Your task to perform on an android device: turn off javascript in the chrome app Image 0: 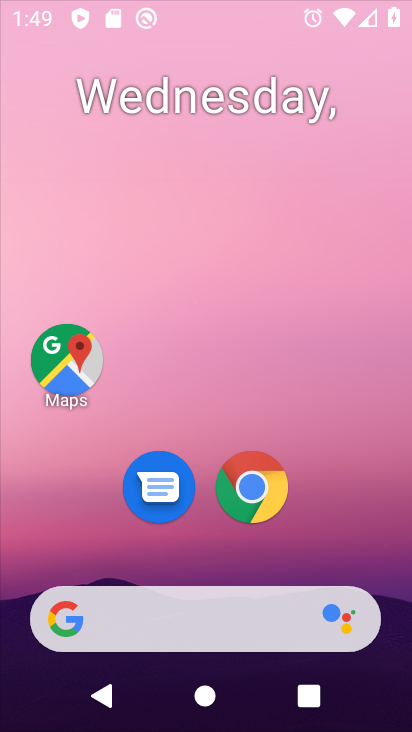
Step 0: drag from (385, 571) to (274, 85)
Your task to perform on an android device: turn off javascript in the chrome app Image 1: 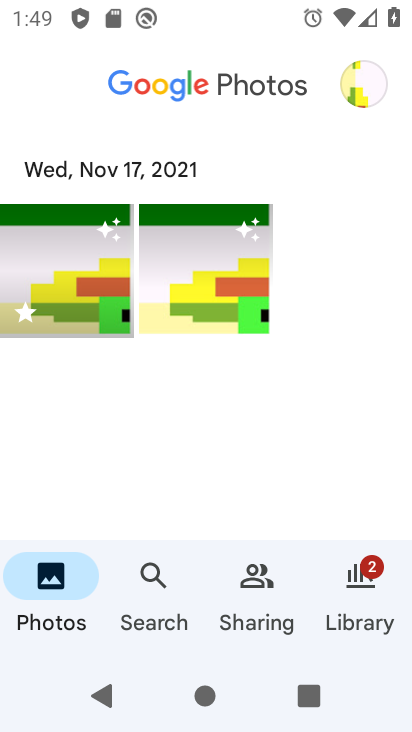
Step 1: press home button
Your task to perform on an android device: turn off javascript in the chrome app Image 2: 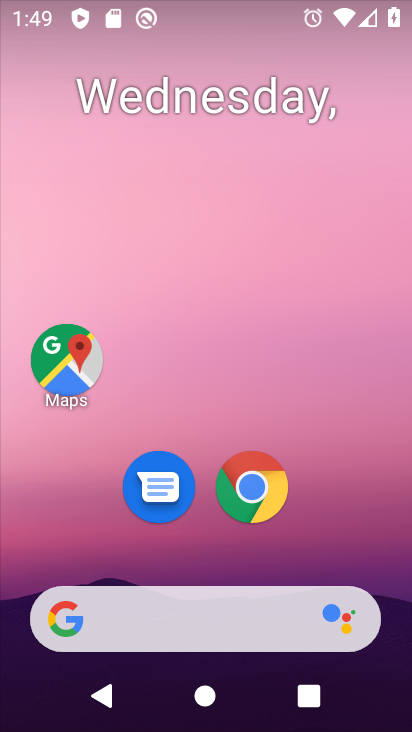
Step 2: drag from (393, 619) to (168, 59)
Your task to perform on an android device: turn off javascript in the chrome app Image 3: 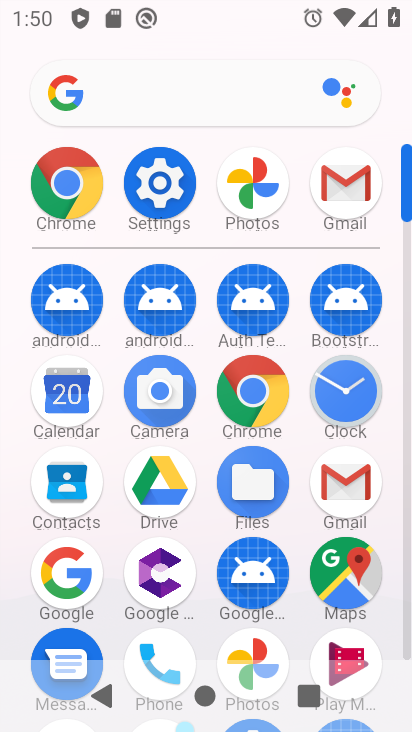
Step 3: click (258, 404)
Your task to perform on an android device: turn off javascript in the chrome app Image 4: 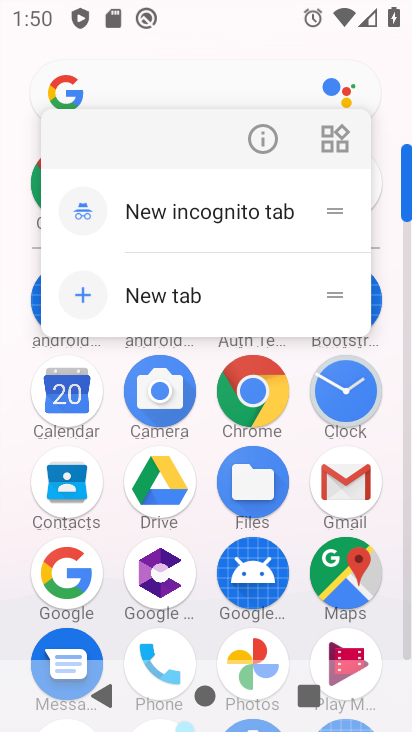
Step 4: click (268, 399)
Your task to perform on an android device: turn off javascript in the chrome app Image 5: 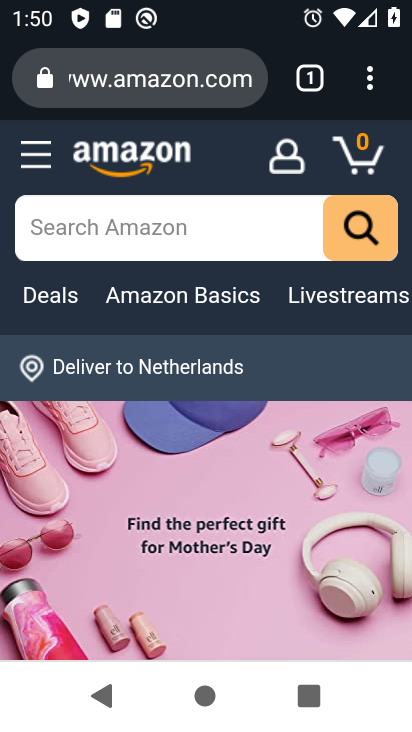
Step 5: press back button
Your task to perform on an android device: turn off javascript in the chrome app Image 6: 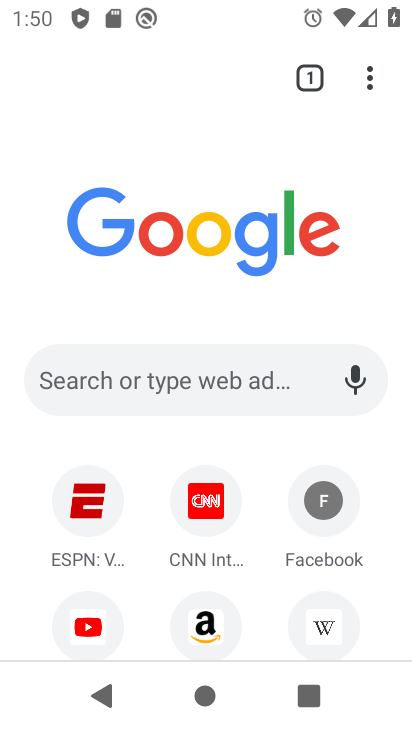
Step 6: click (370, 73)
Your task to perform on an android device: turn off javascript in the chrome app Image 7: 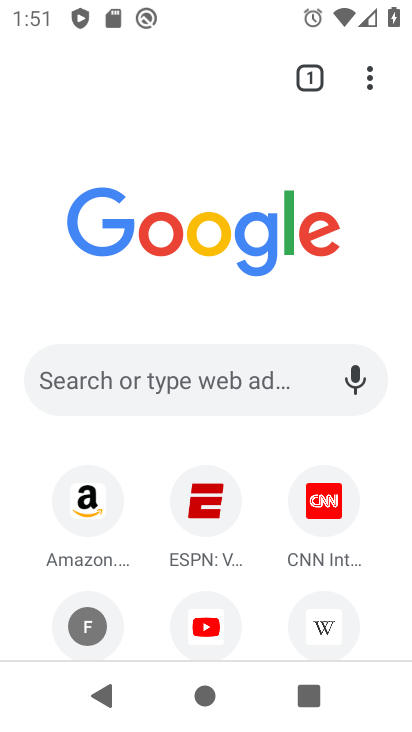
Step 7: click (370, 73)
Your task to perform on an android device: turn off javascript in the chrome app Image 8: 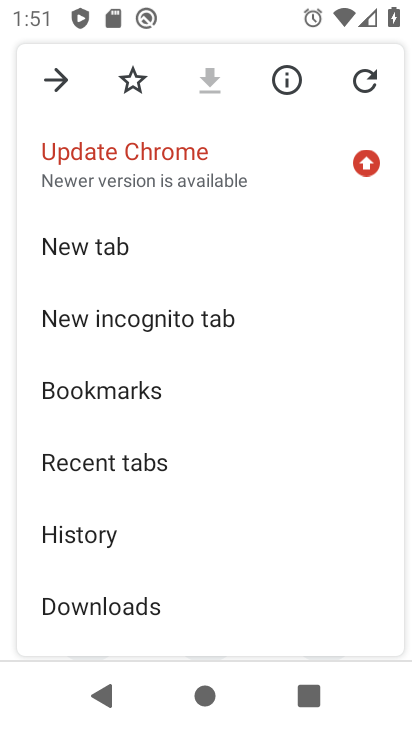
Step 8: drag from (172, 603) to (184, 127)
Your task to perform on an android device: turn off javascript in the chrome app Image 9: 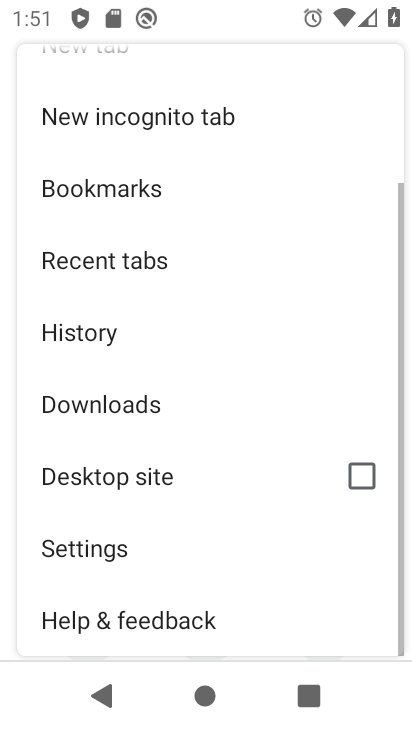
Step 9: click (107, 556)
Your task to perform on an android device: turn off javascript in the chrome app Image 10: 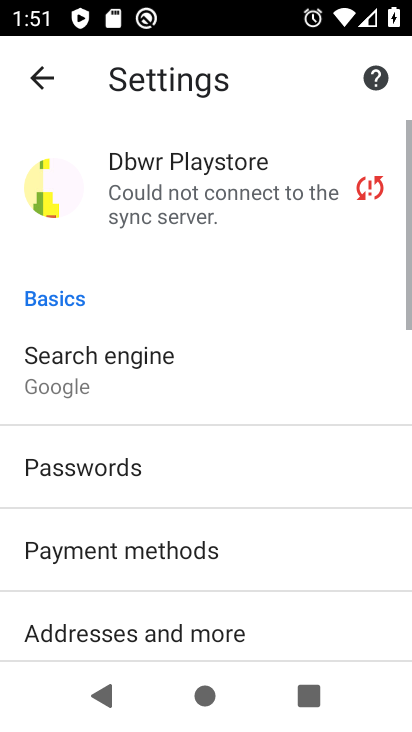
Step 10: drag from (114, 589) to (173, 155)
Your task to perform on an android device: turn off javascript in the chrome app Image 11: 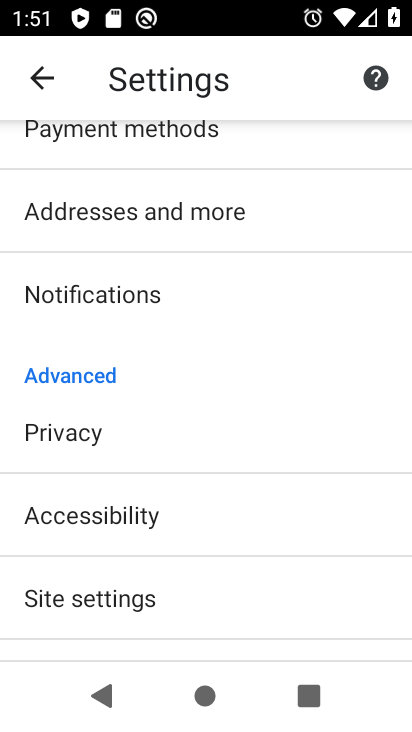
Step 11: click (133, 597)
Your task to perform on an android device: turn off javascript in the chrome app Image 12: 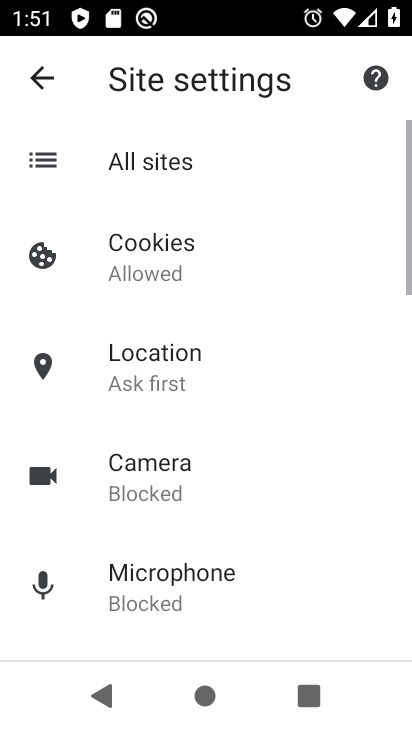
Step 12: drag from (166, 555) to (237, 155)
Your task to perform on an android device: turn off javascript in the chrome app Image 13: 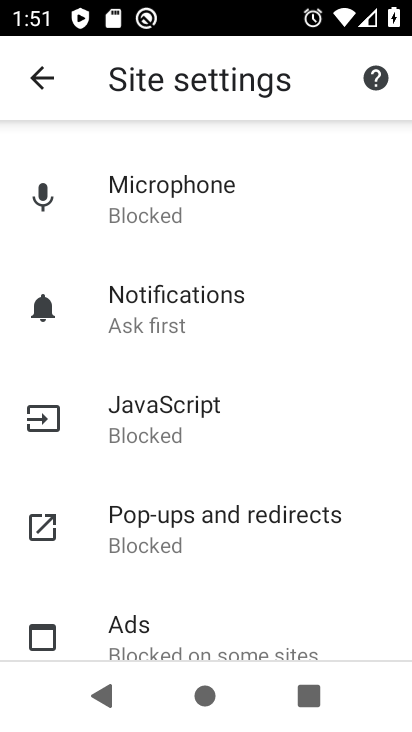
Step 13: click (206, 419)
Your task to perform on an android device: turn off javascript in the chrome app Image 14: 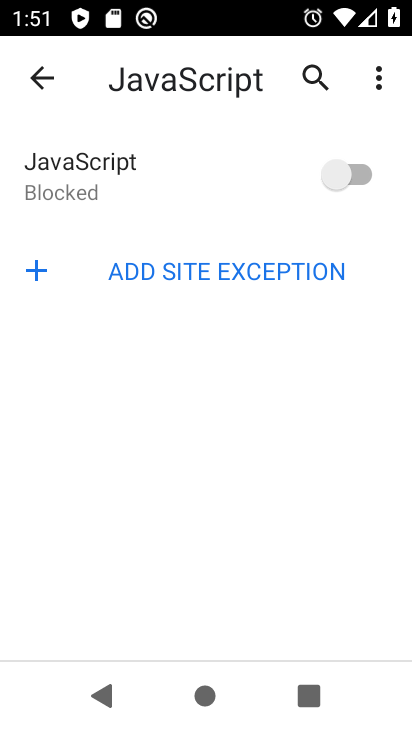
Step 14: task complete